Your task to perform on an android device: Turn off the flashlight Image 0: 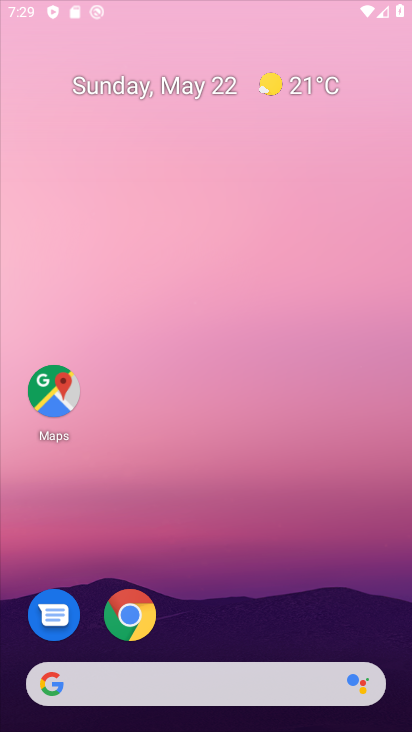
Step 0: click (152, 592)
Your task to perform on an android device: Turn off the flashlight Image 1: 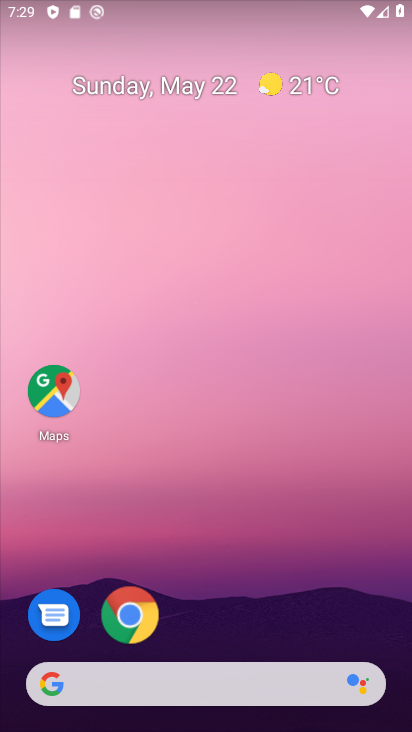
Step 1: drag from (209, 657) to (204, 314)
Your task to perform on an android device: Turn off the flashlight Image 2: 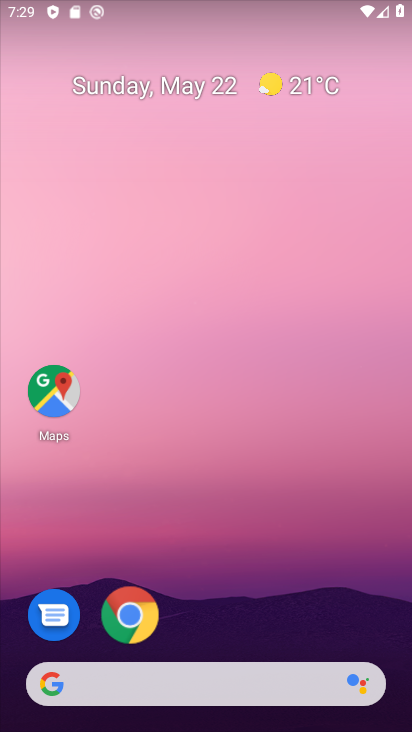
Step 2: drag from (224, 634) to (232, 414)
Your task to perform on an android device: Turn off the flashlight Image 3: 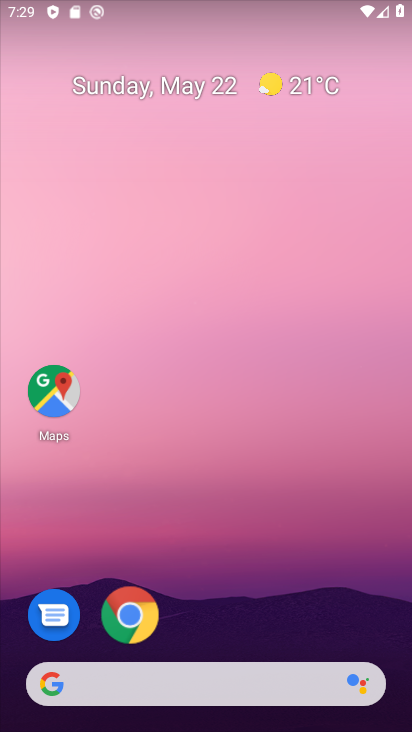
Step 3: drag from (205, 583) to (228, 409)
Your task to perform on an android device: Turn off the flashlight Image 4: 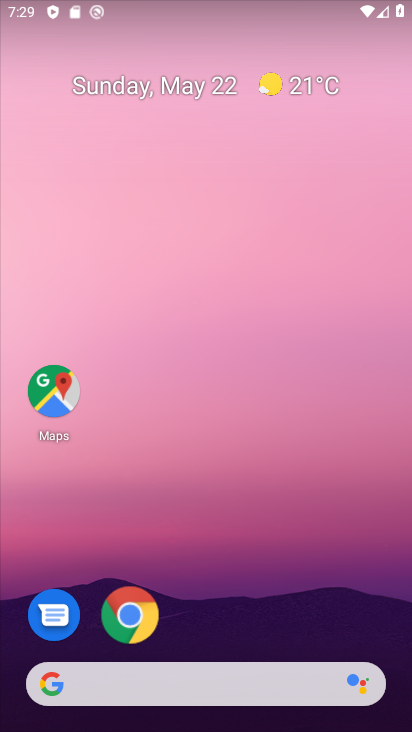
Step 4: drag from (219, 671) to (253, 452)
Your task to perform on an android device: Turn off the flashlight Image 5: 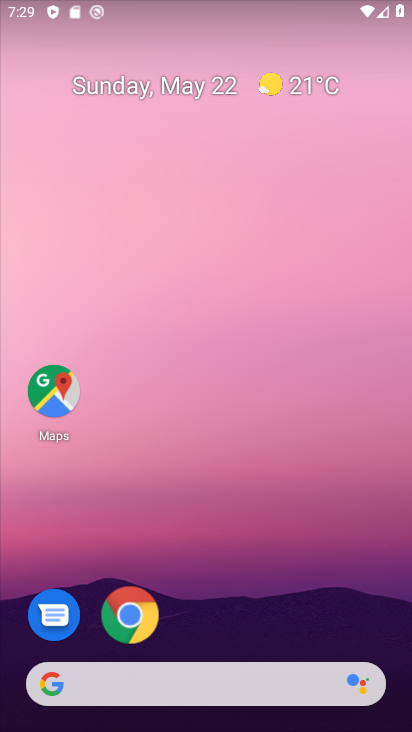
Step 5: drag from (302, 667) to (298, 440)
Your task to perform on an android device: Turn off the flashlight Image 6: 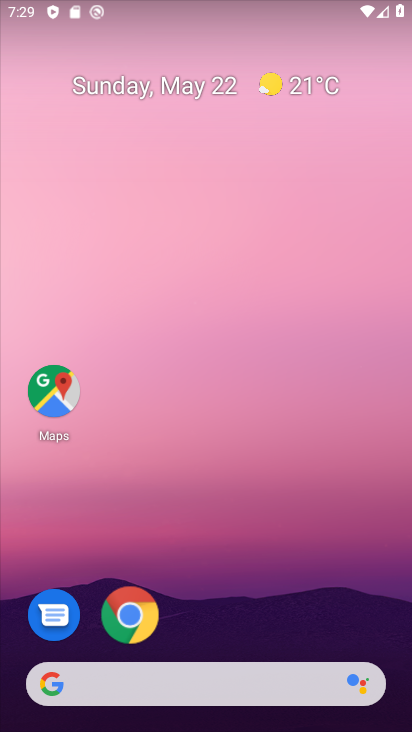
Step 6: drag from (228, 631) to (239, 340)
Your task to perform on an android device: Turn off the flashlight Image 7: 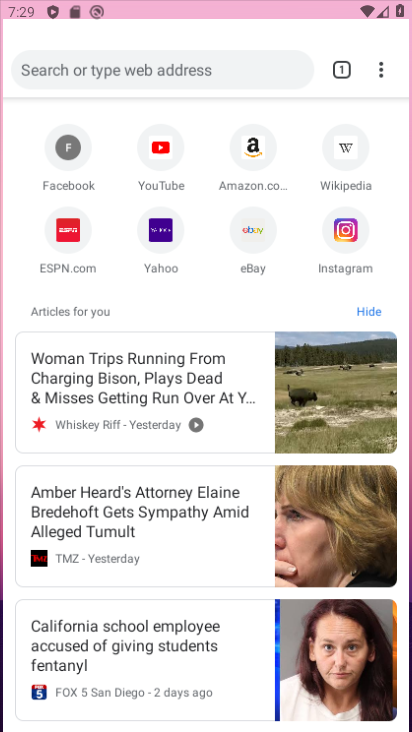
Step 7: click (229, 573)
Your task to perform on an android device: Turn off the flashlight Image 8: 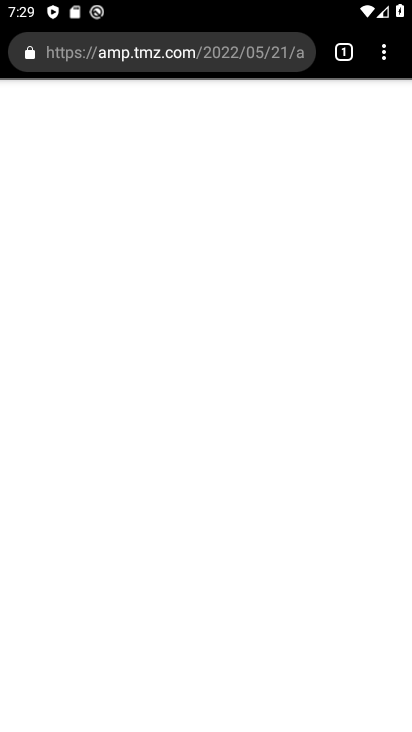
Step 8: press home button
Your task to perform on an android device: Turn off the flashlight Image 9: 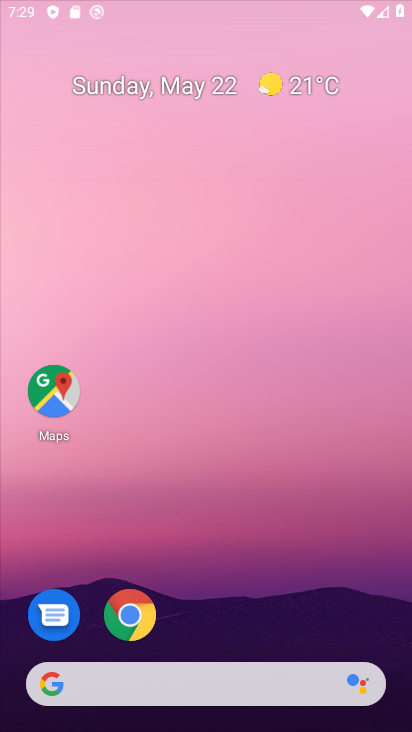
Step 9: drag from (269, 594) to (251, 279)
Your task to perform on an android device: Turn off the flashlight Image 10: 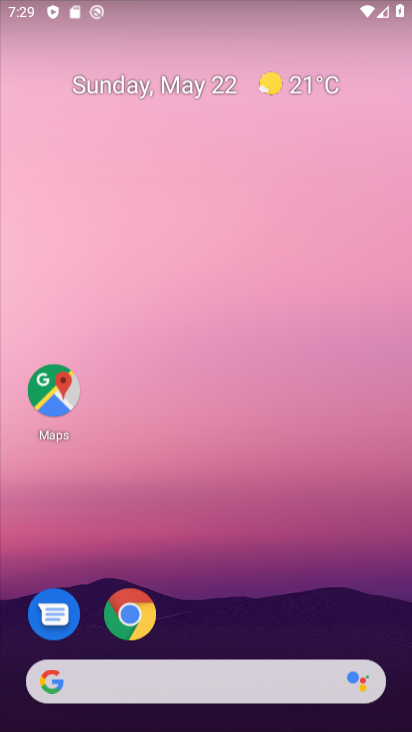
Step 10: drag from (215, 524) to (264, 281)
Your task to perform on an android device: Turn off the flashlight Image 11: 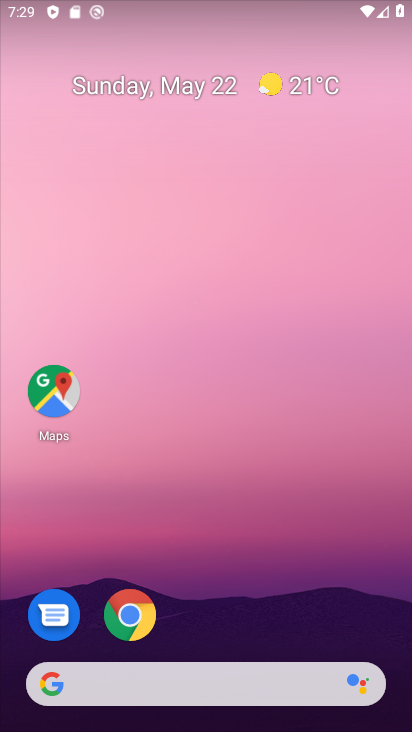
Step 11: drag from (281, 613) to (322, 215)
Your task to perform on an android device: Turn off the flashlight Image 12: 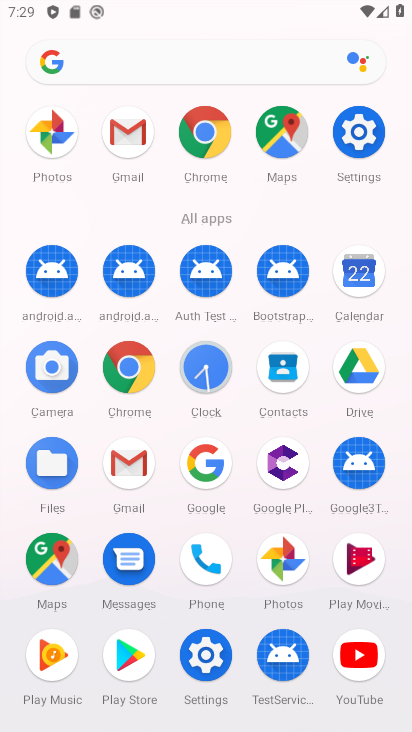
Step 12: click (367, 130)
Your task to perform on an android device: Turn off the flashlight Image 13: 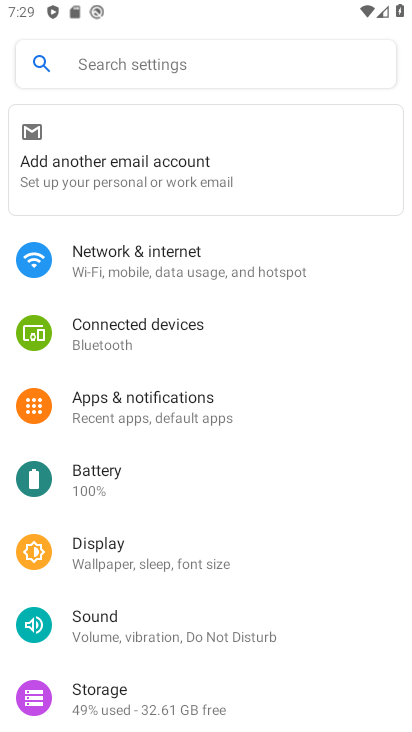
Step 13: task complete